Your task to perform on an android device: search for outdoor chairs on article.com Image 0: 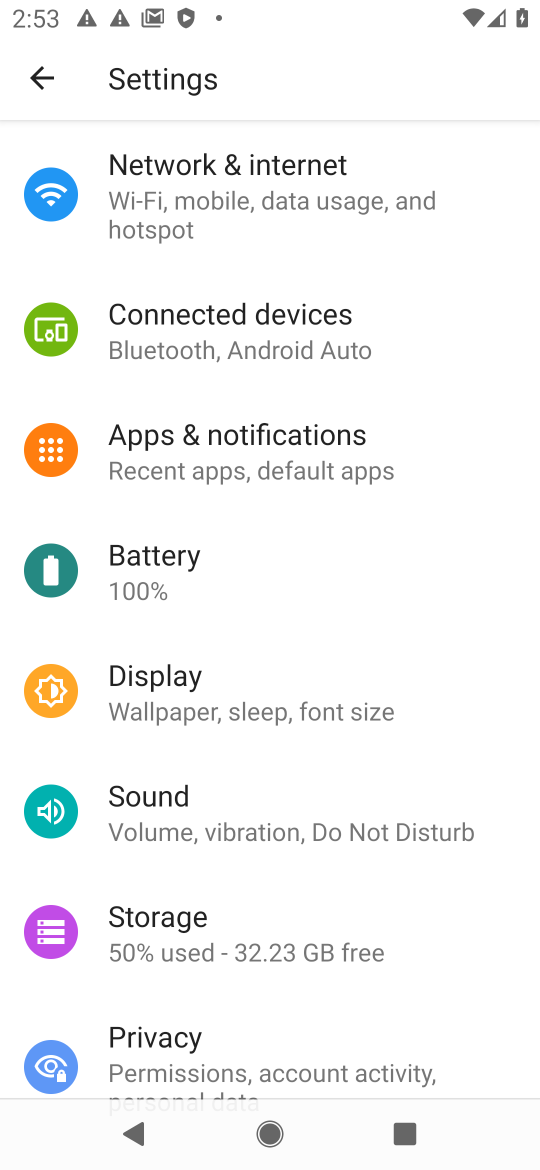
Step 0: press home button
Your task to perform on an android device: search for outdoor chairs on article.com Image 1: 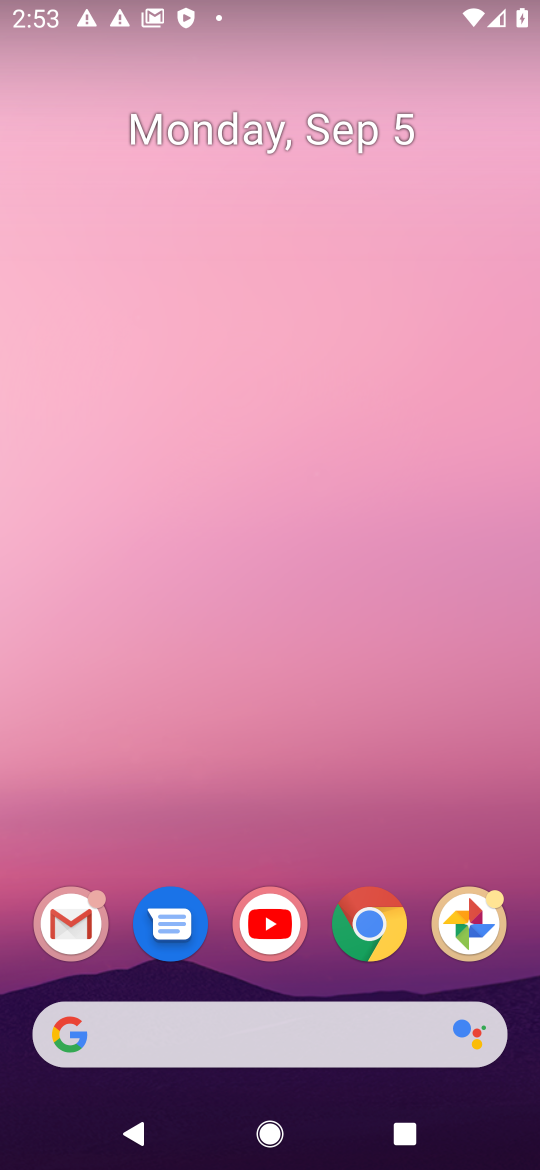
Step 1: click (359, 938)
Your task to perform on an android device: search for outdoor chairs on article.com Image 2: 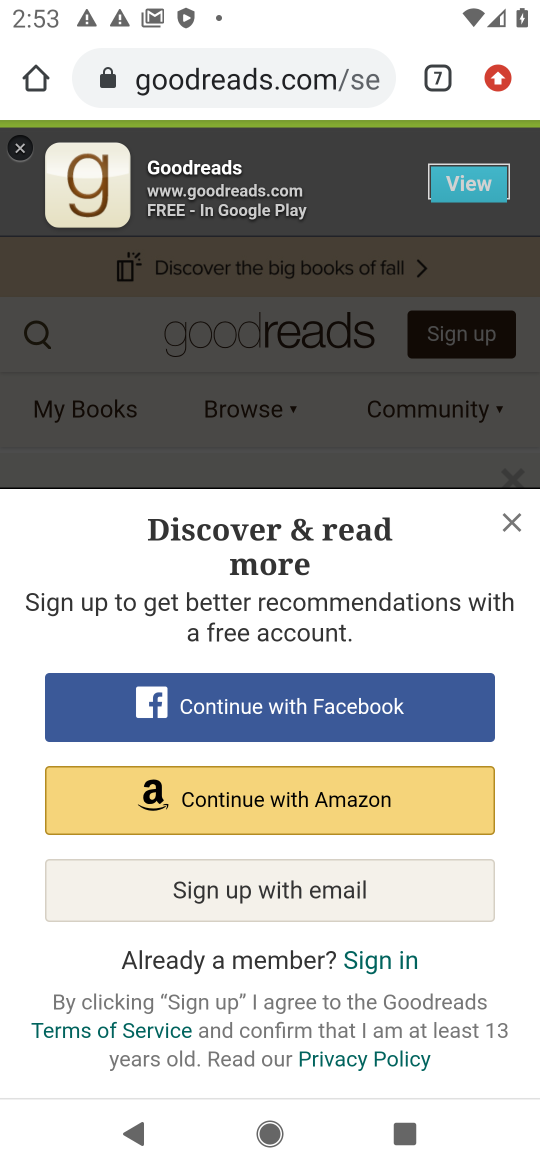
Step 2: click (296, 85)
Your task to perform on an android device: search for outdoor chairs on article.com Image 3: 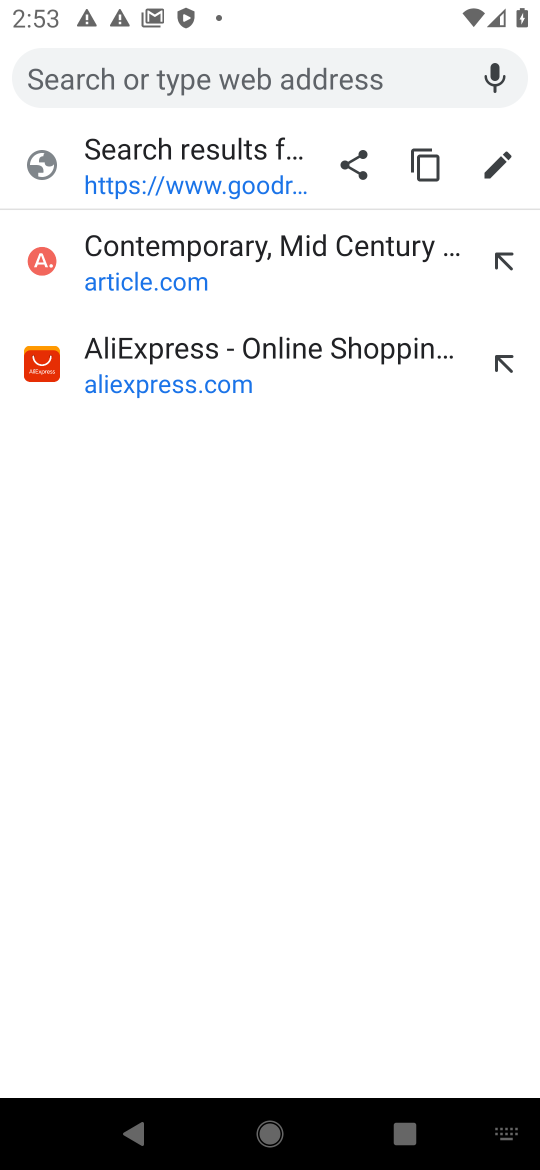
Step 3: type "article.com"
Your task to perform on an android device: search for outdoor chairs on article.com Image 4: 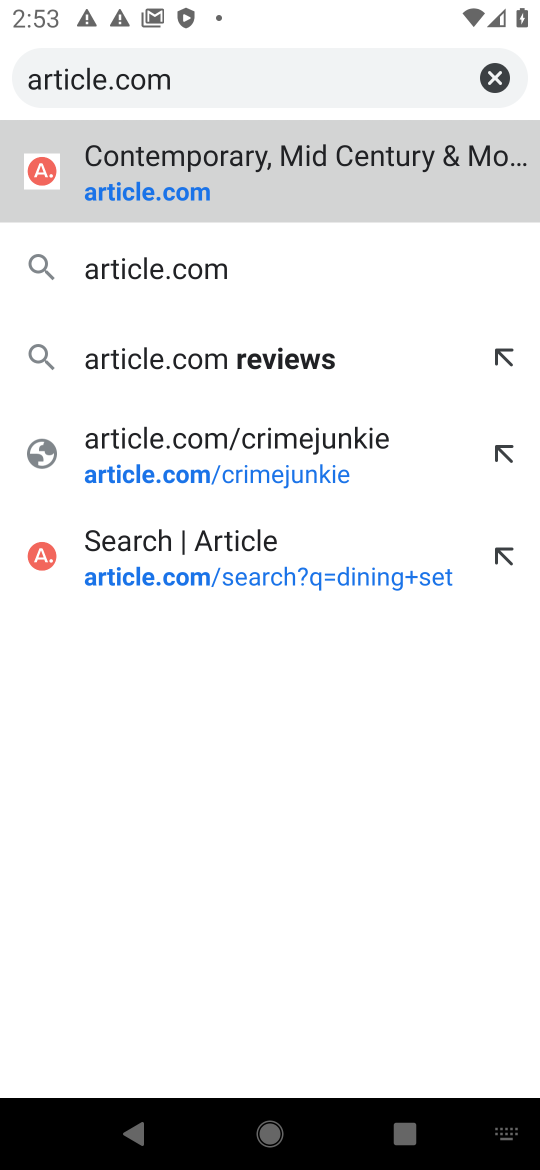
Step 4: click (90, 163)
Your task to perform on an android device: search for outdoor chairs on article.com Image 5: 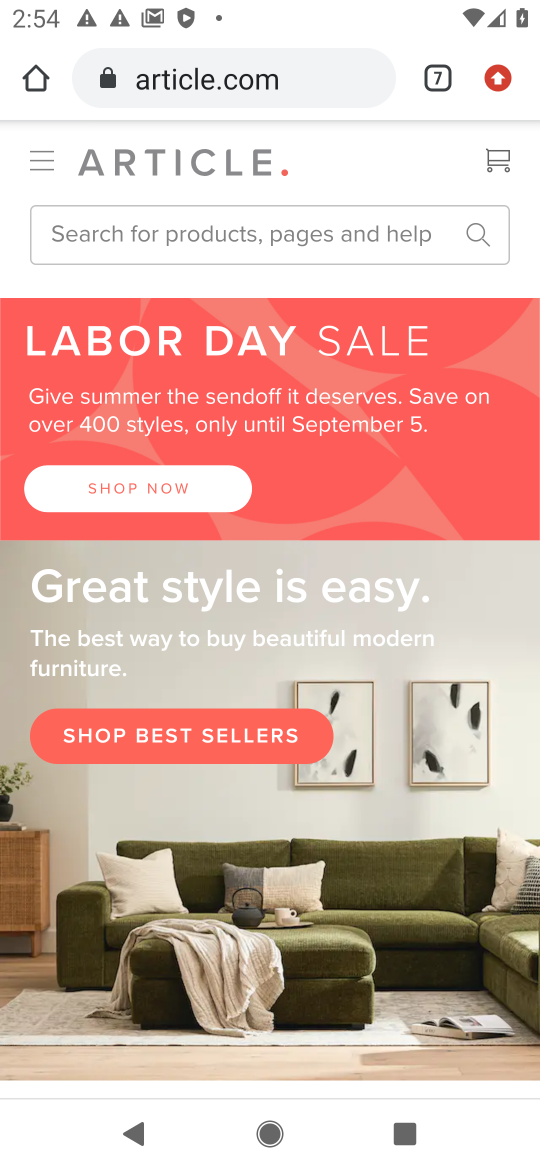
Step 5: click (190, 230)
Your task to perform on an android device: search for outdoor chairs on article.com Image 6: 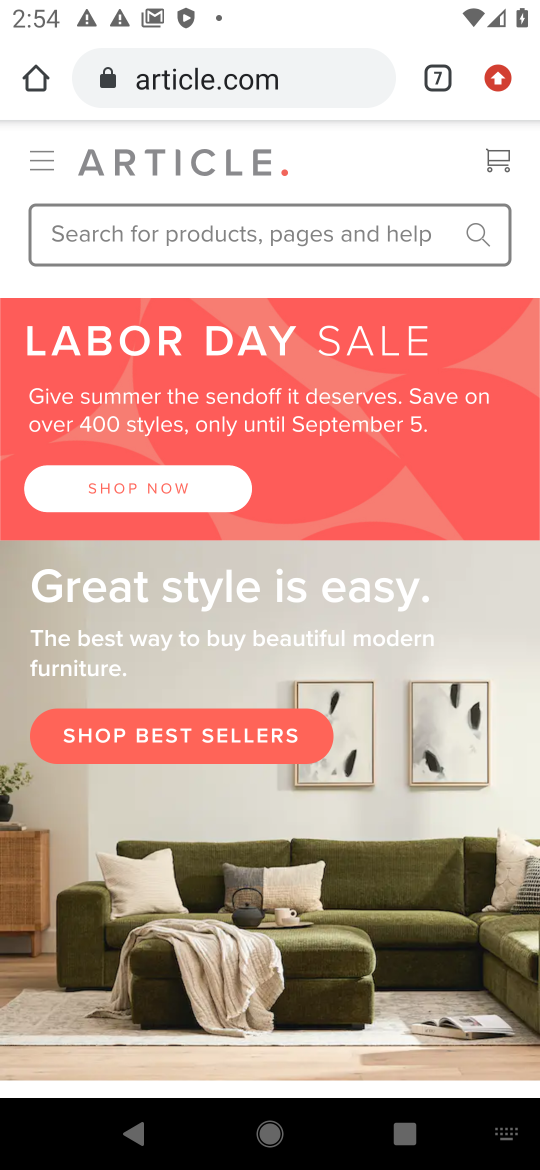
Step 6: click (186, 209)
Your task to perform on an android device: search for outdoor chairs on article.com Image 7: 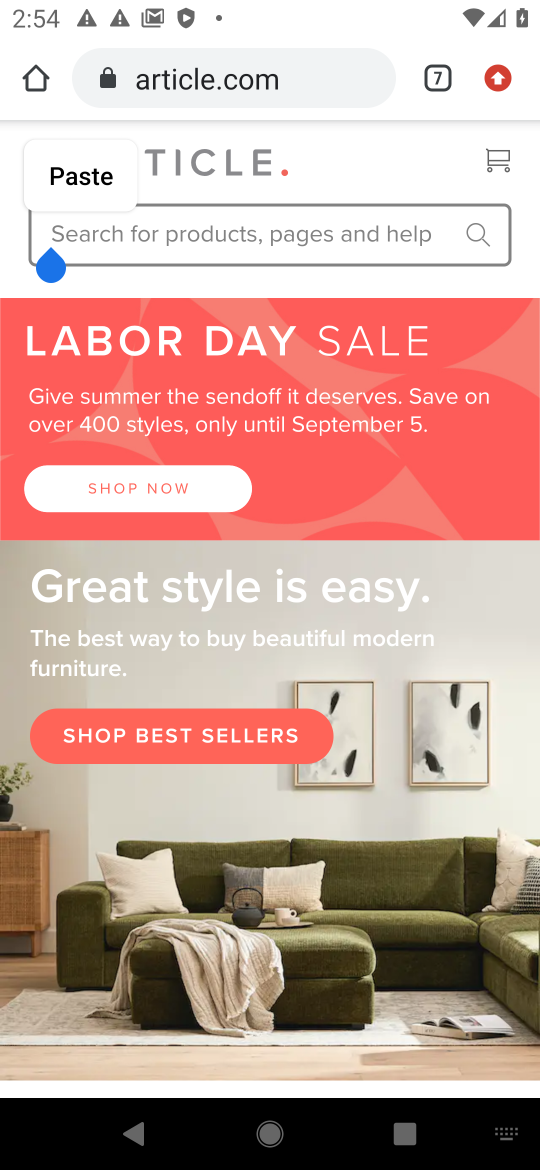
Step 7: type "outdoor chairs"
Your task to perform on an android device: search for outdoor chairs on article.com Image 8: 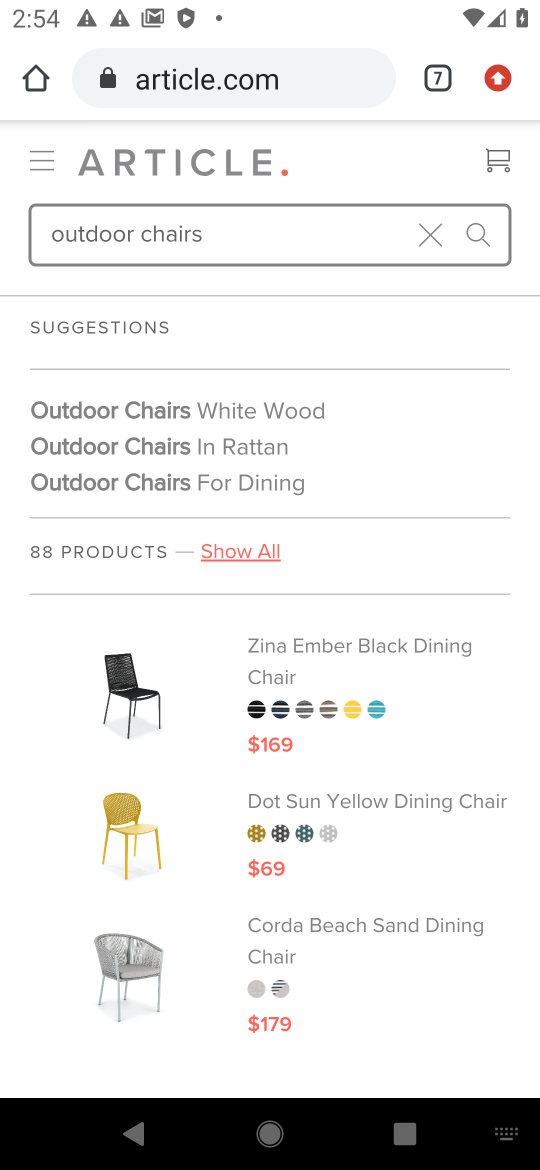
Step 8: click (490, 230)
Your task to perform on an android device: search for outdoor chairs on article.com Image 9: 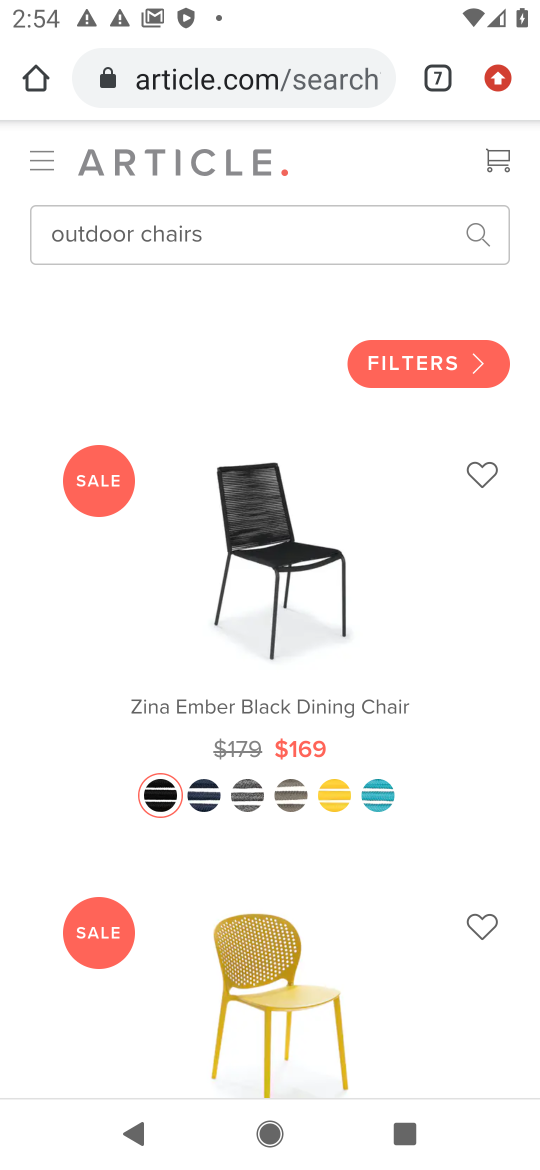
Step 9: task complete